Your task to perform on an android device: turn off wifi Image 0: 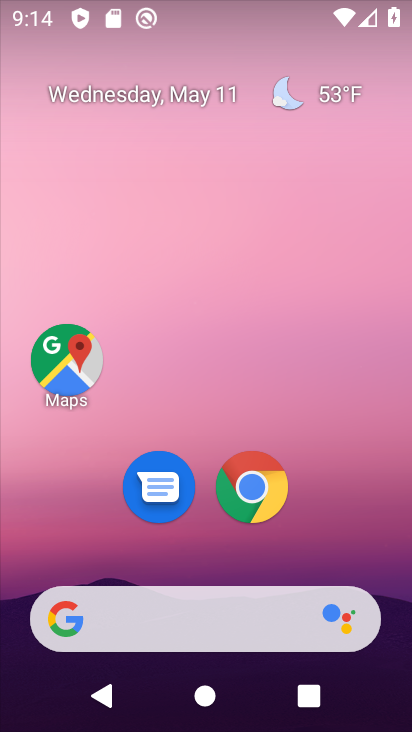
Step 0: drag from (351, 505) to (276, 56)
Your task to perform on an android device: turn off wifi Image 1: 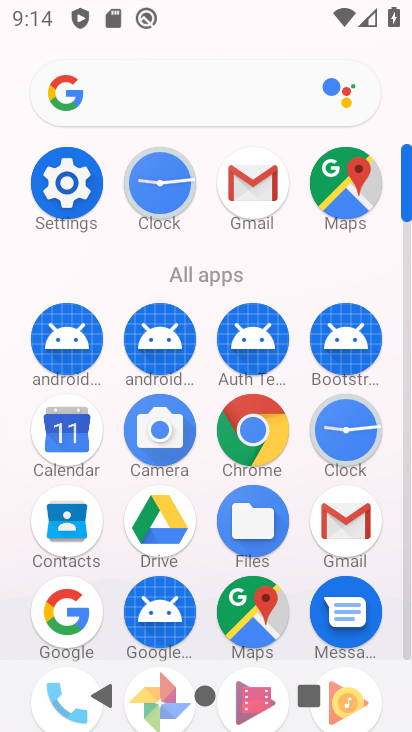
Step 1: click (69, 181)
Your task to perform on an android device: turn off wifi Image 2: 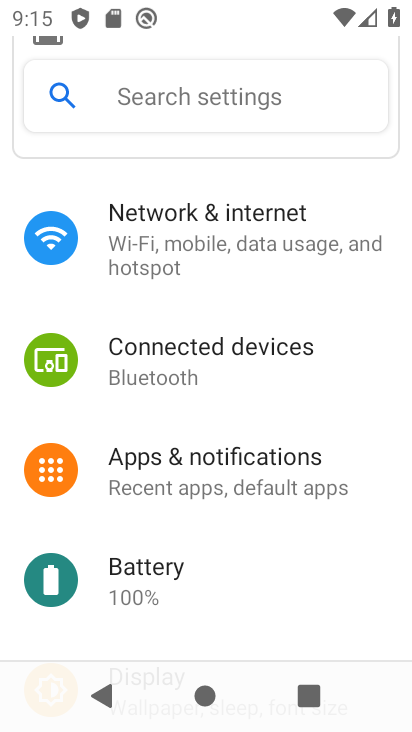
Step 2: click (161, 227)
Your task to perform on an android device: turn off wifi Image 3: 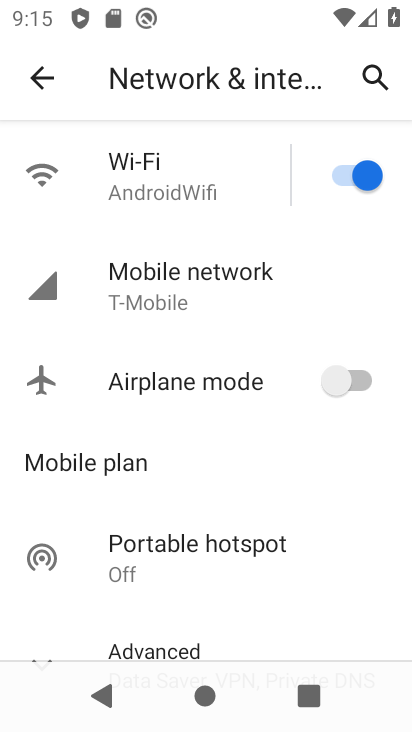
Step 3: click (358, 177)
Your task to perform on an android device: turn off wifi Image 4: 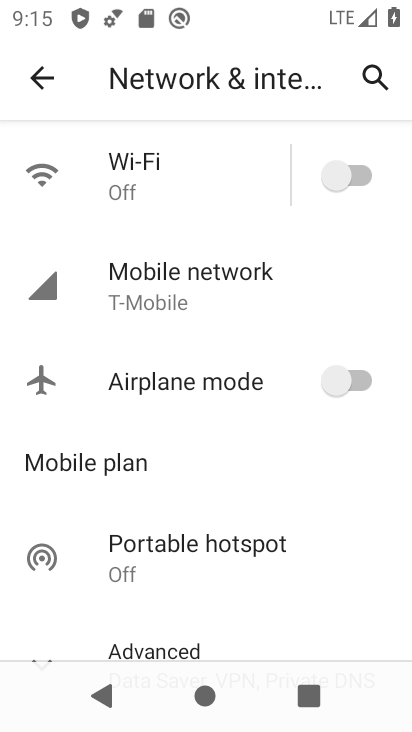
Step 4: task complete